Your task to perform on an android device: Do I have any events this weekend? Image 0: 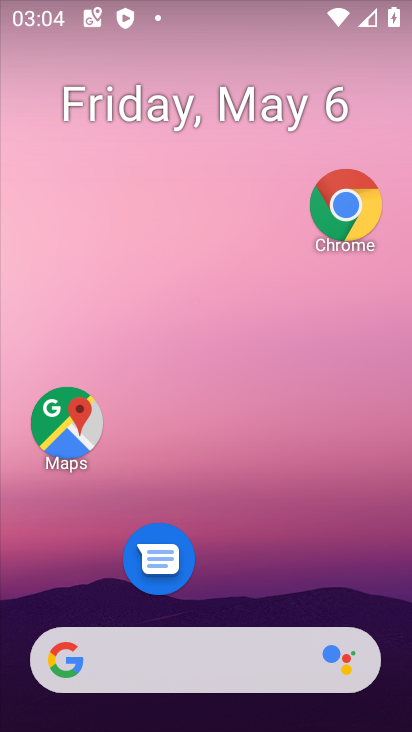
Step 0: drag from (180, 678) to (383, 12)
Your task to perform on an android device: Do I have any events this weekend? Image 1: 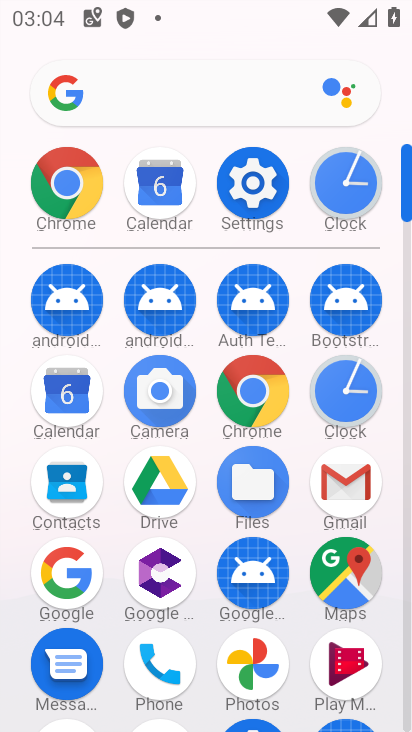
Step 1: click (71, 402)
Your task to perform on an android device: Do I have any events this weekend? Image 2: 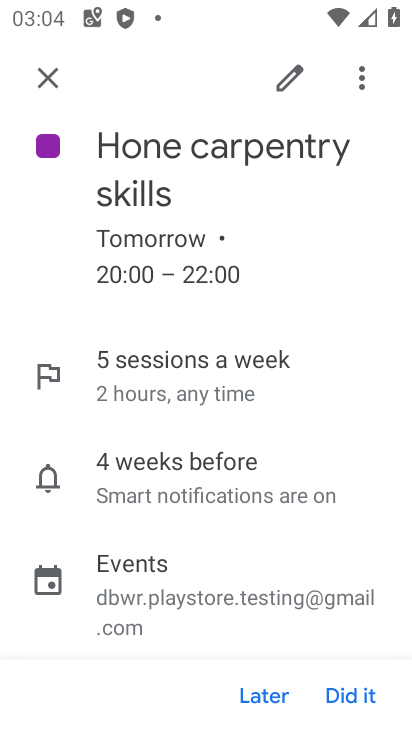
Step 2: task complete